Your task to perform on an android device: Open accessibility settings Image 0: 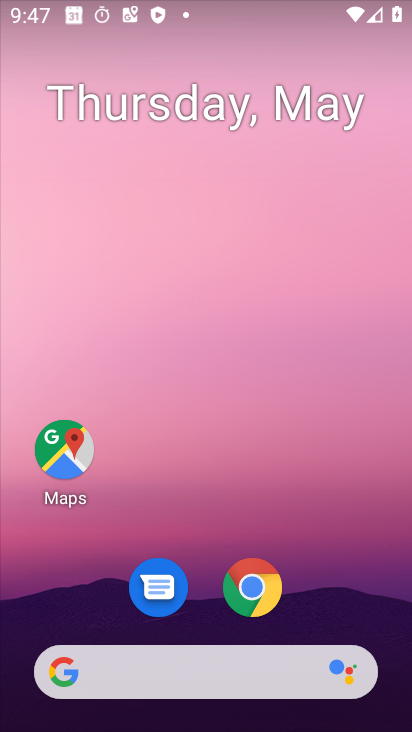
Step 0: drag from (384, 470) to (376, 7)
Your task to perform on an android device: Open accessibility settings Image 1: 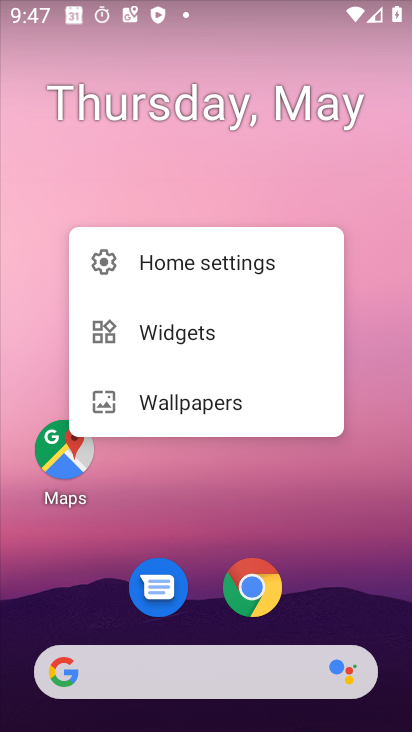
Step 1: drag from (381, 617) to (398, 0)
Your task to perform on an android device: Open accessibility settings Image 2: 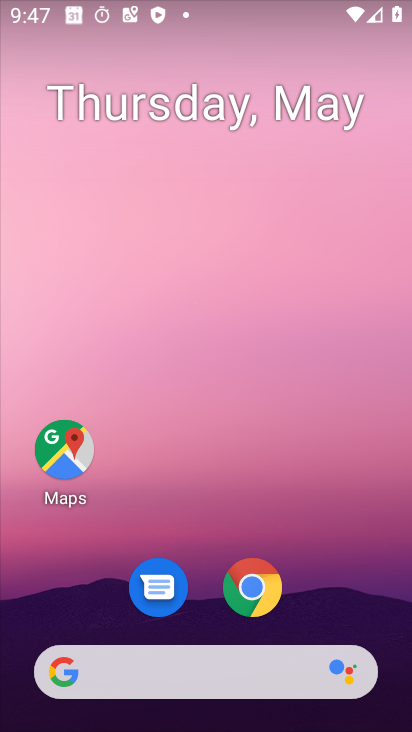
Step 2: drag from (351, 629) to (389, 15)
Your task to perform on an android device: Open accessibility settings Image 3: 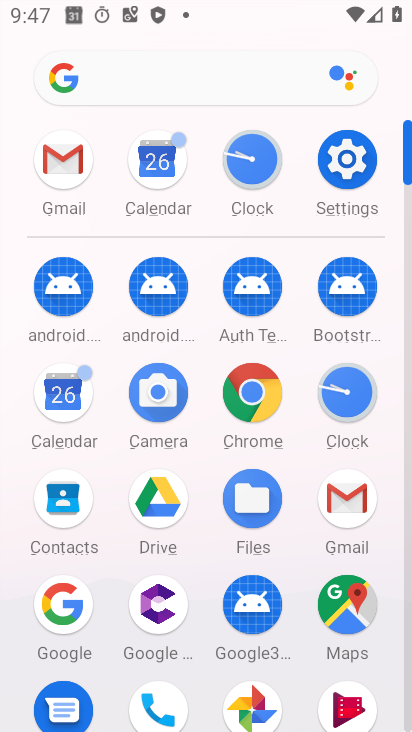
Step 3: click (355, 172)
Your task to perform on an android device: Open accessibility settings Image 4: 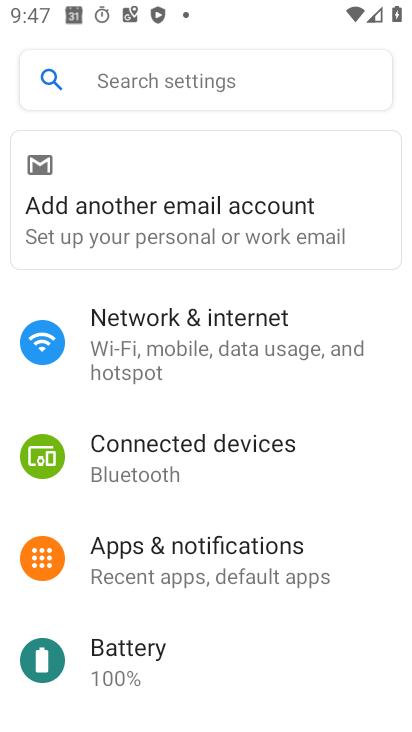
Step 4: drag from (384, 624) to (384, 198)
Your task to perform on an android device: Open accessibility settings Image 5: 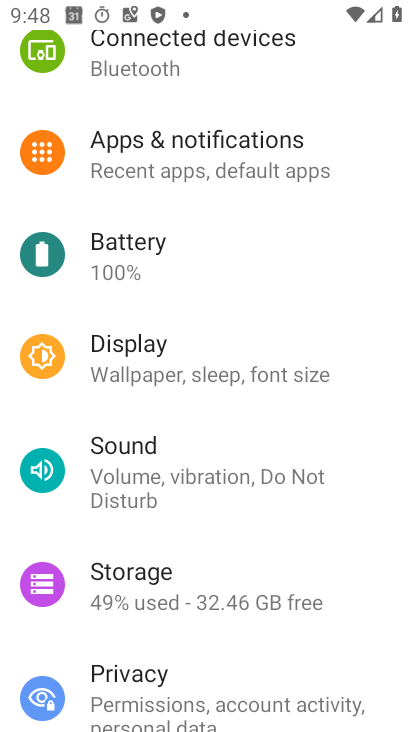
Step 5: drag from (356, 618) to (348, 235)
Your task to perform on an android device: Open accessibility settings Image 6: 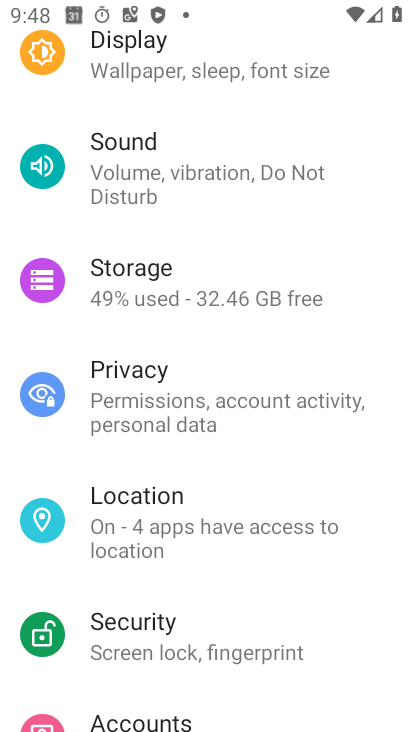
Step 6: drag from (351, 640) to (341, 208)
Your task to perform on an android device: Open accessibility settings Image 7: 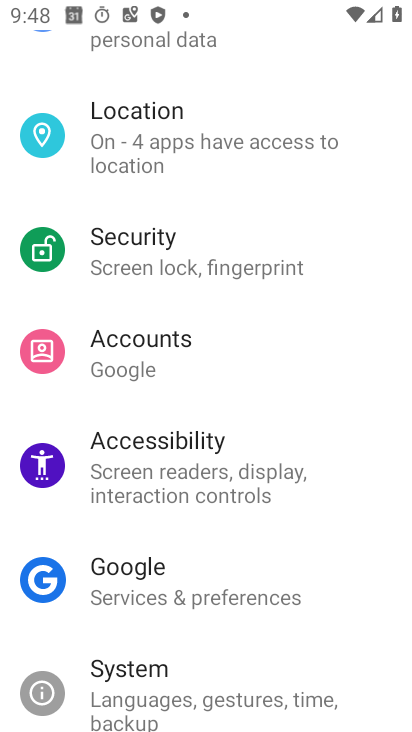
Step 7: click (137, 472)
Your task to perform on an android device: Open accessibility settings Image 8: 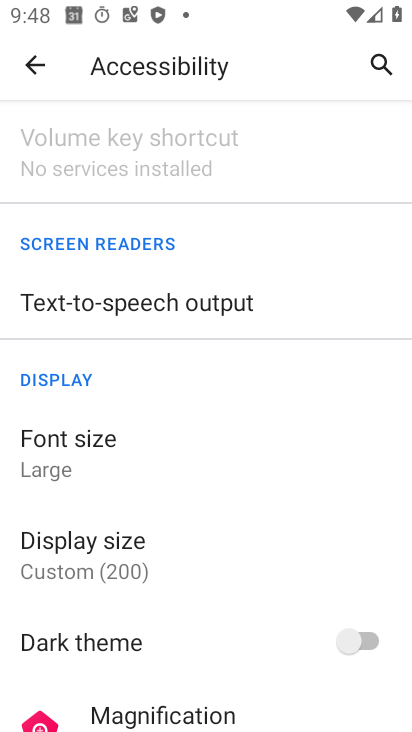
Step 8: task complete